Your task to perform on an android device: Go to settings Image 0: 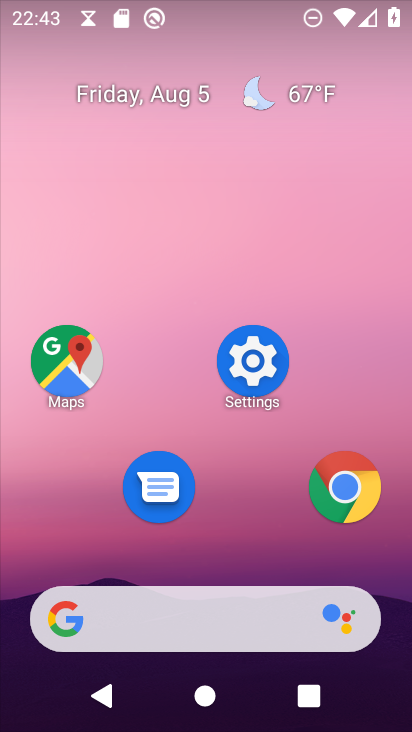
Step 0: click (249, 370)
Your task to perform on an android device: Go to settings Image 1: 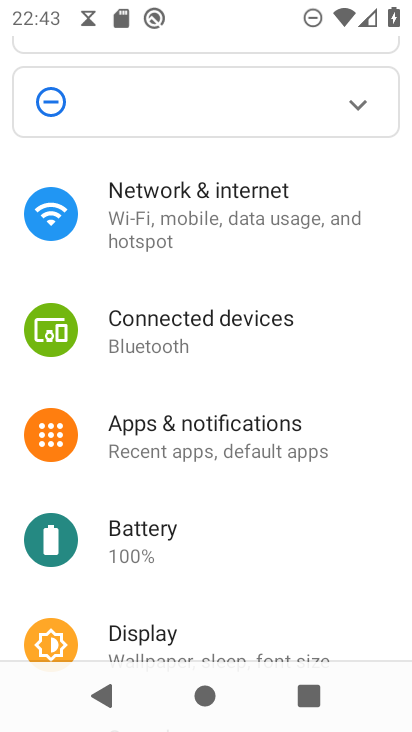
Step 1: task complete